Your task to perform on an android device: change the clock display to show seconds Image 0: 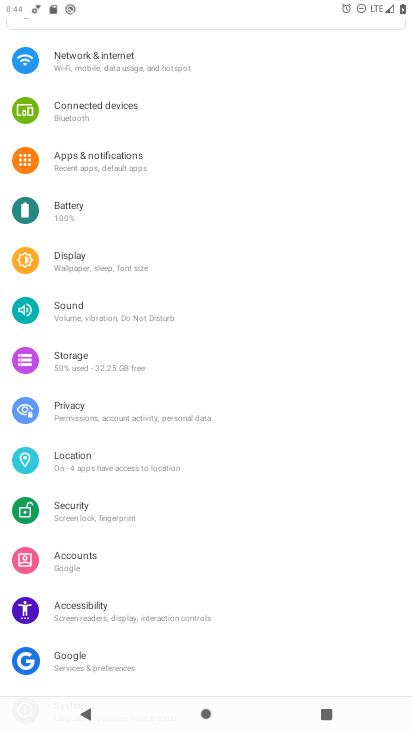
Step 0: press home button
Your task to perform on an android device: change the clock display to show seconds Image 1: 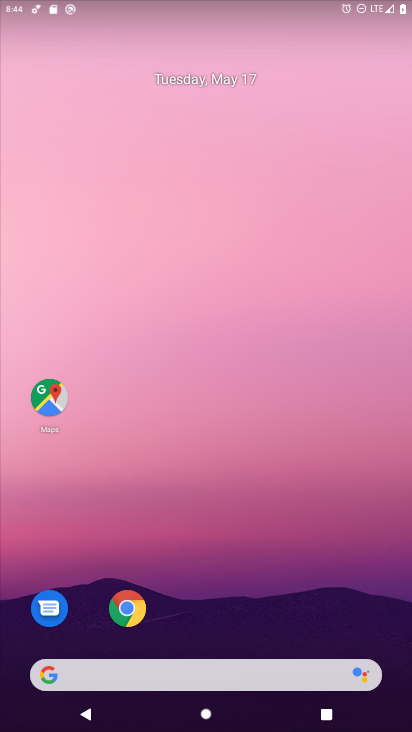
Step 1: drag from (236, 579) to (295, 113)
Your task to perform on an android device: change the clock display to show seconds Image 2: 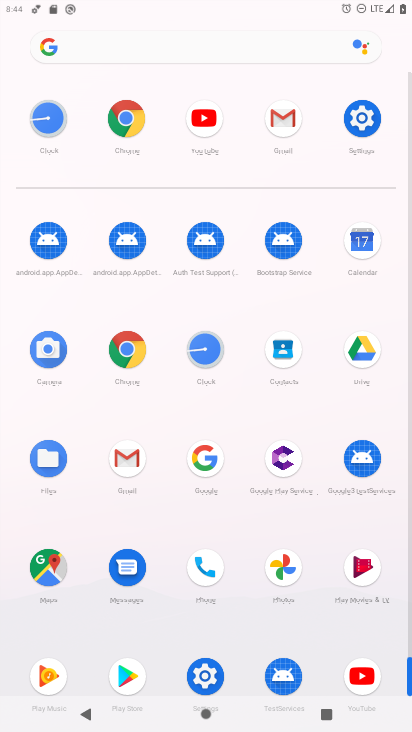
Step 2: click (210, 356)
Your task to perform on an android device: change the clock display to show seconds Image 3: 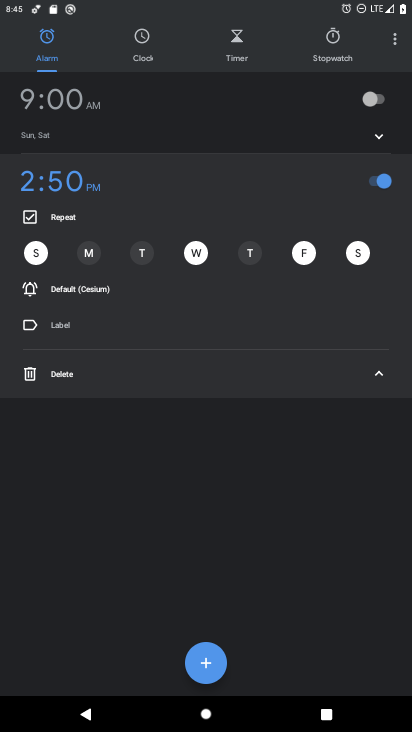
Step 3: click (399, 38)
Your task to perform on an android device: change the clock display to show seconds Image 4: 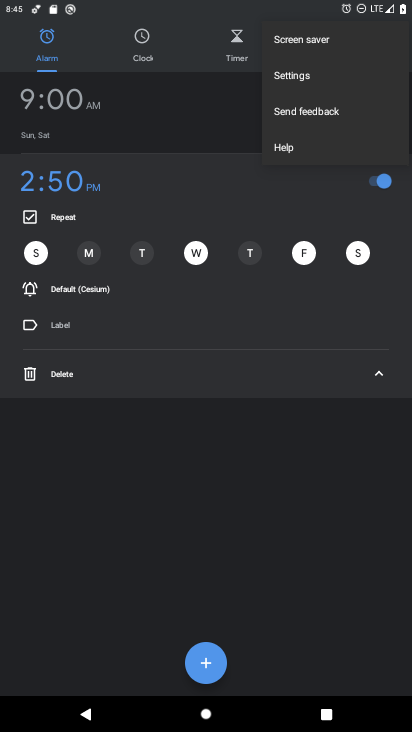
Step 4: click (291, 84)
Your task to perform on an android device: change the clock display to show seconds Image 5: 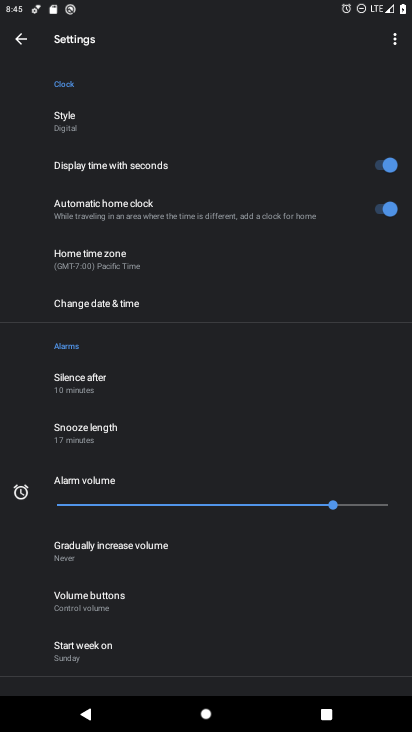
Step 5: click (99, 127)
Your task to perform on an android device: change the clock display to show seconds Image 6: 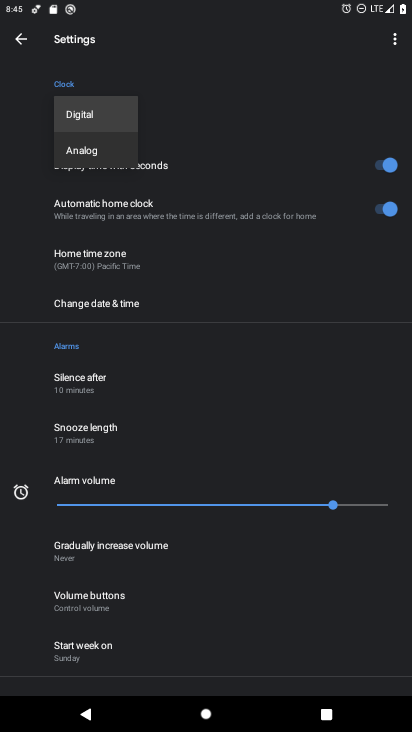
Step 6: click (88, 146)
Your task to perform on an android device: change the clock display to show seconds Image 7: 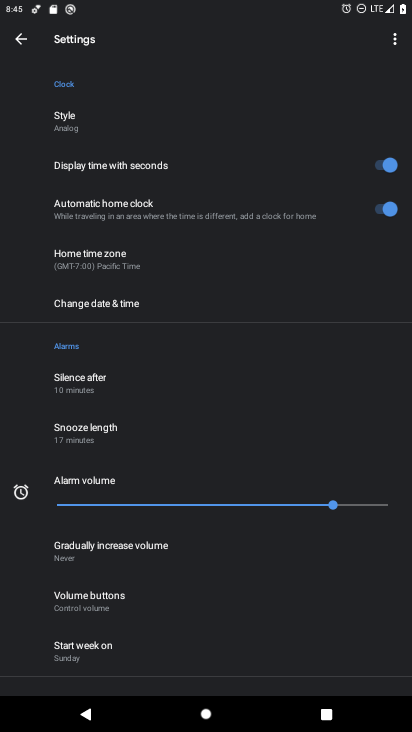
Step 7: task complete